Your task to perform on an android device: Open Google Maps Image 0: 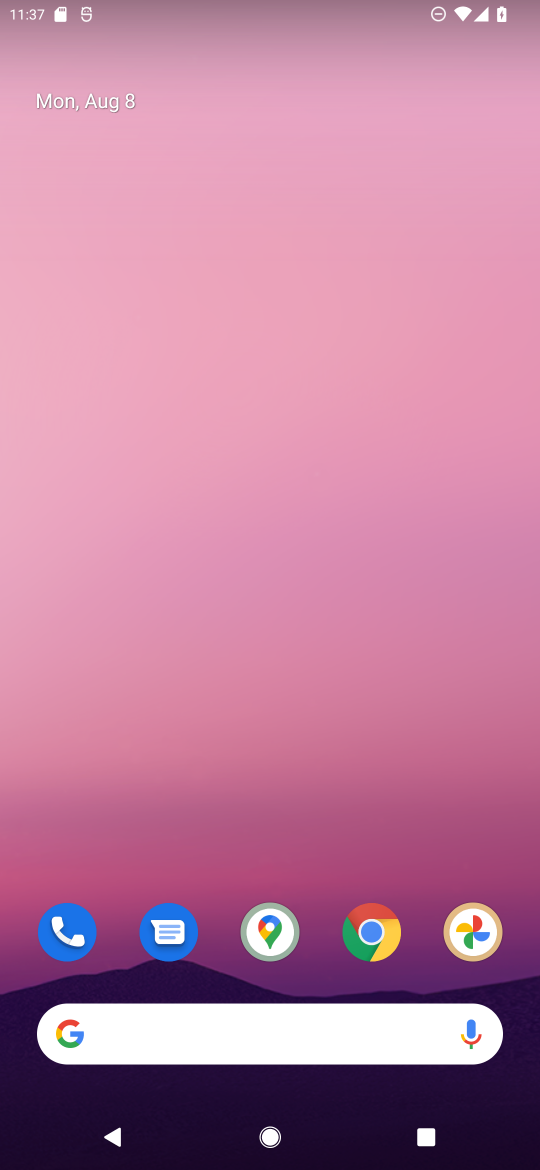
Step 0: click (273, 952)
Your task to perform on an android device: Open Google Maps Image 1: 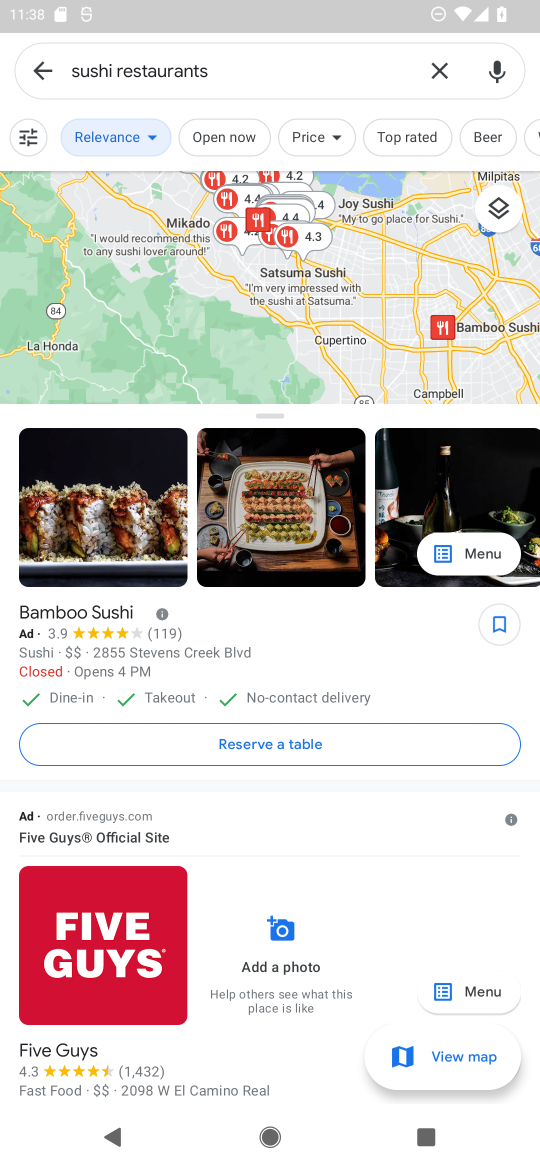
Step 1: task complete